Your task to perform on an android device: snooze an email in the gmail app Image 0: 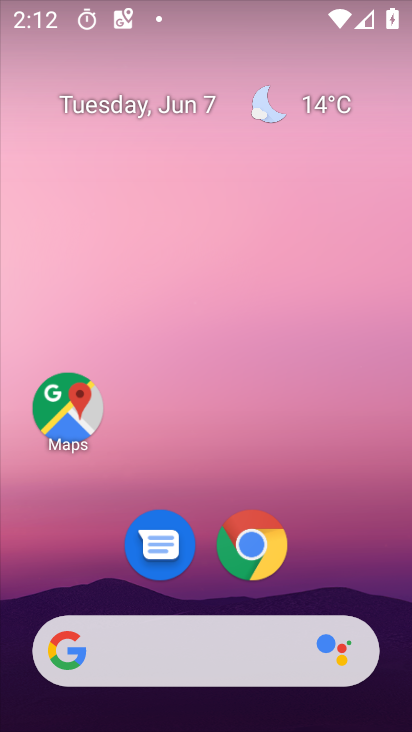
Step 0: drag from (340, 502) to (266, 49)
Your task to perform on an android device: snooze an email in the gmail app Image 1: 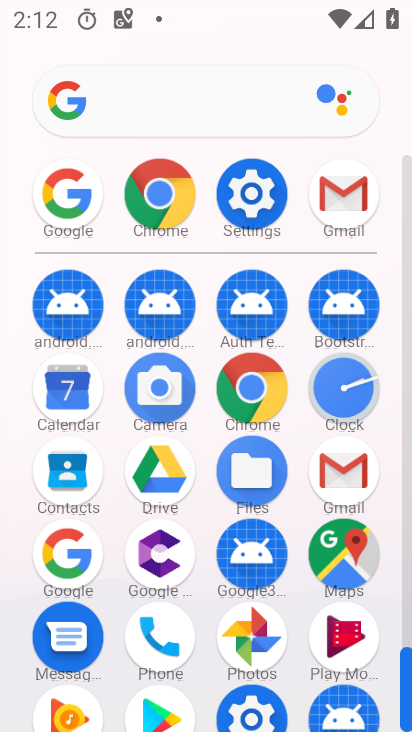
Step 1: click (358, 473)
Your task to perform on an android device: snooze an email in the gmail app Image 2: 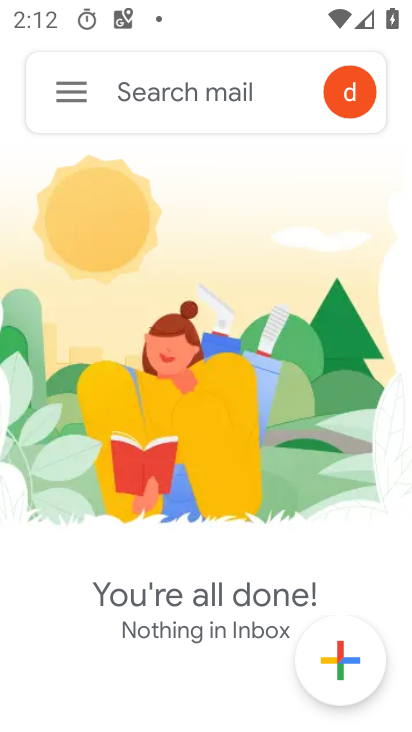
Step 2: click (77, 81)
Your task to perform on an android device: snooze an email in the gmail app Image 3: 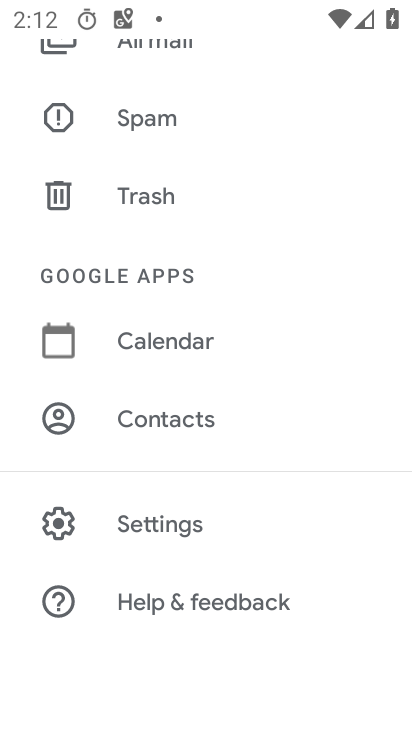
Step 3: drag from (226, 87) to (235, 607)
Your task to perform on an android device: snooze an email in the gmail app Image 4: 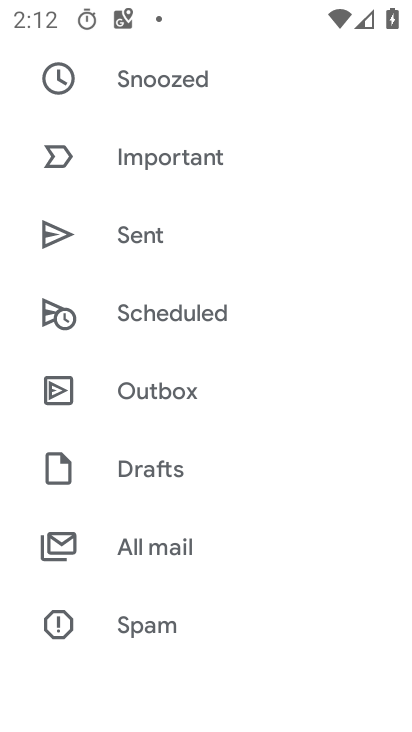
Step 4: click (225, 540)
Your task to perform on an android device: snooze an email in the gmail app Image 5: 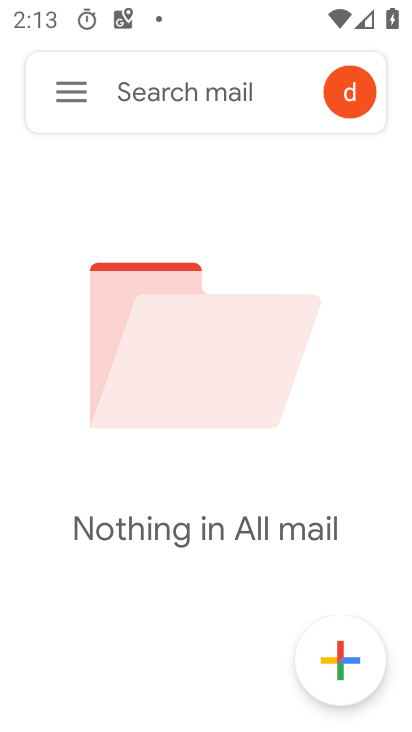
Step 5: task complete